Your task to perform on an android device: Check the settings for the Google Chrome app Image 0: 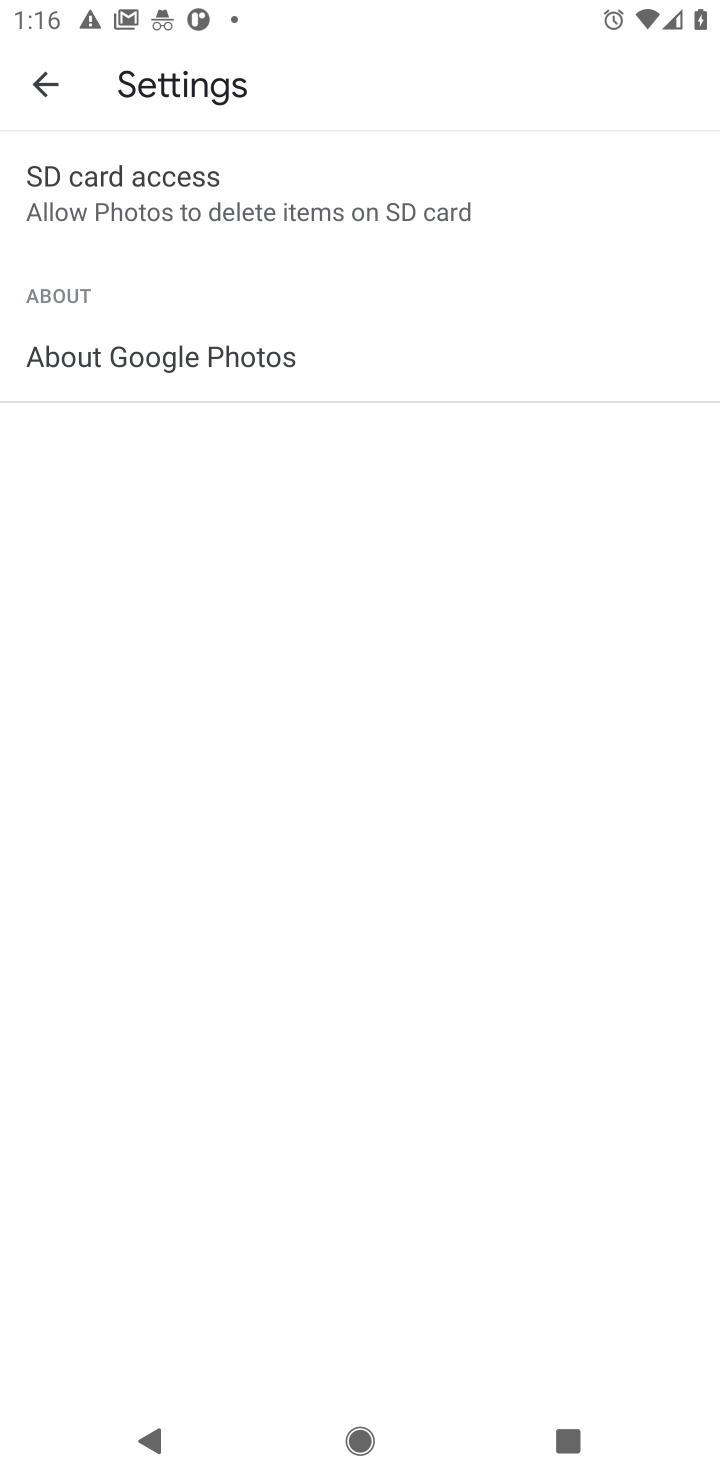
Step 0: press home button
Your task to perform on an android device: Check the settings for the Google Chrome app Image 1: 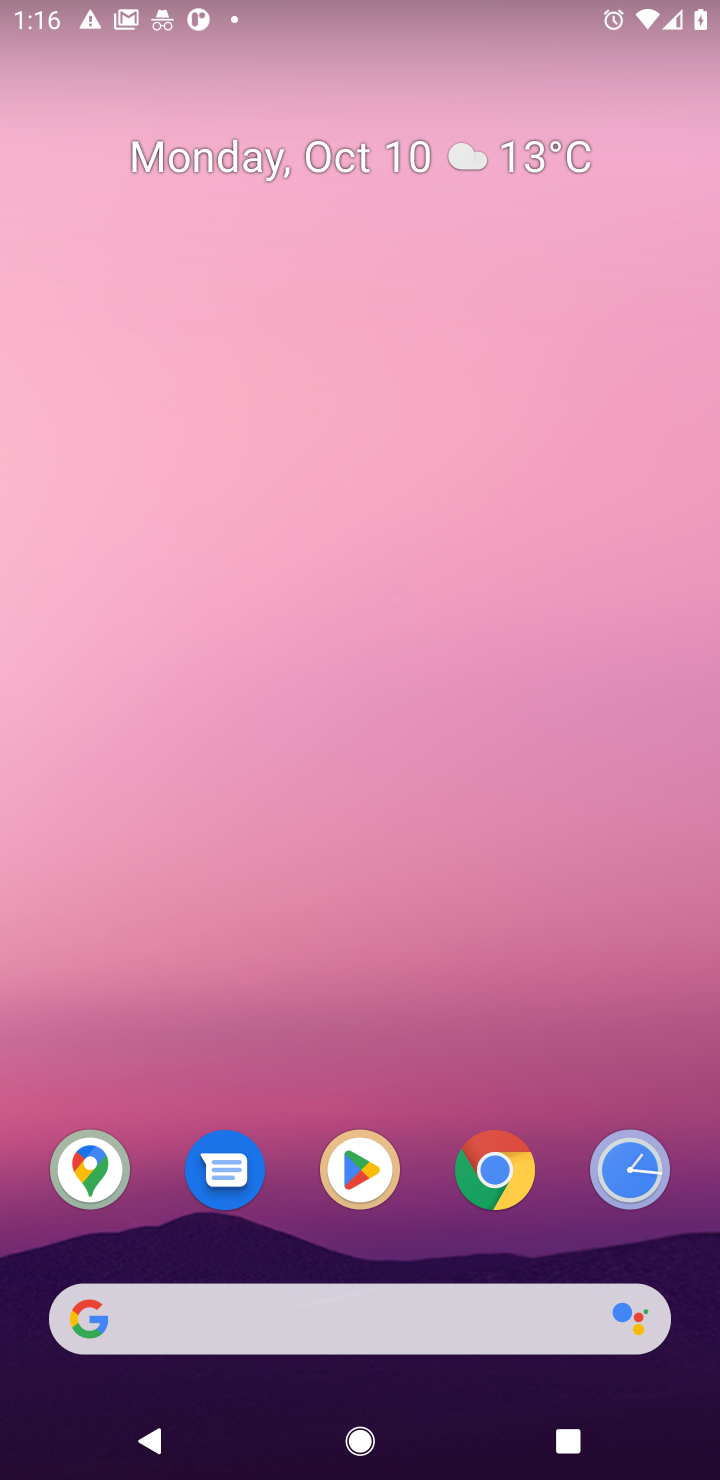
Step 1: click (503, 1196)
Your task to perform on an android device: Check the settings for the Google Chrome app Image 2: 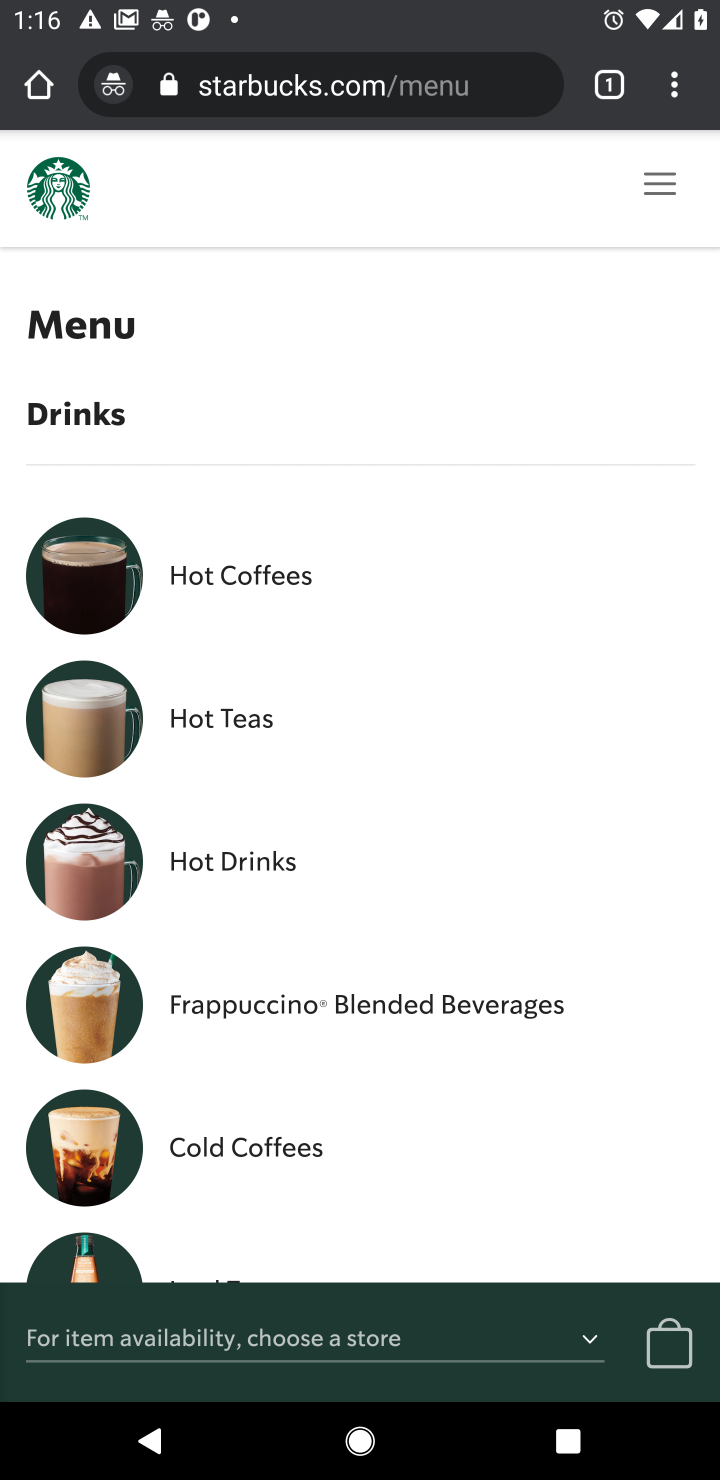
Step 2: click (683, 100)
Your task to perform on an android device: Check the settings for the Google Chrome app Image 3: 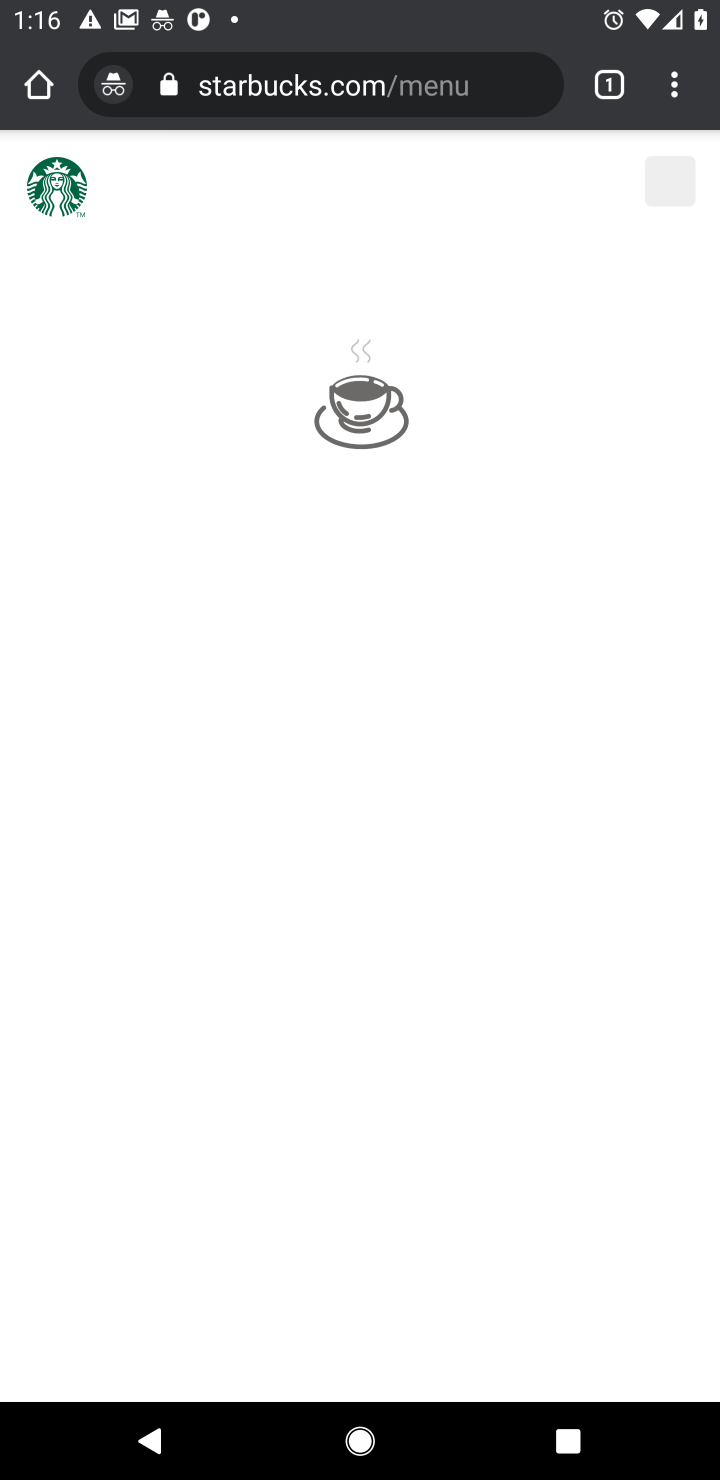
Step 3: click (683, 100)
Your task to perform on an android device: Check the settings for the Google Chrome app Image 4: 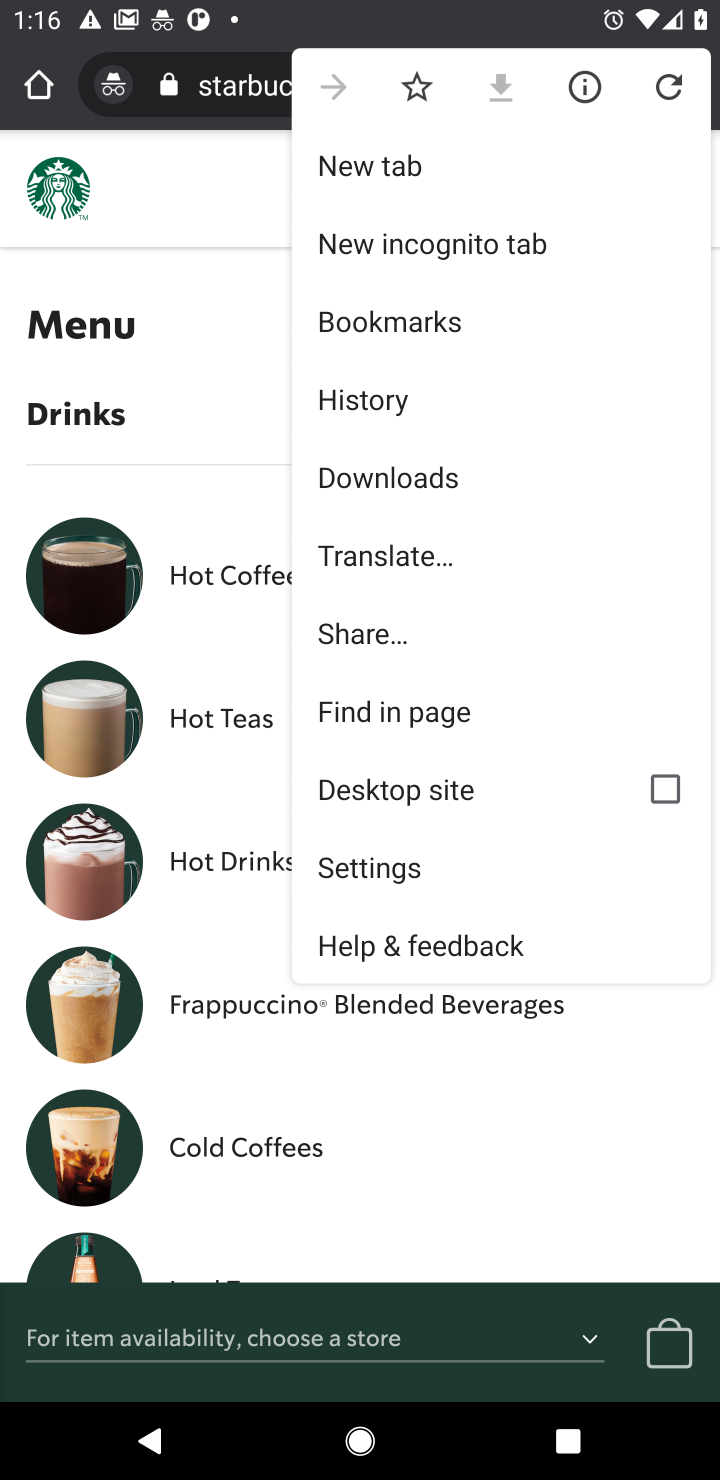
Step 4: click (377, 864)
Your task to perform on an android device: Check the settings for the Google Chrome app Image 5: 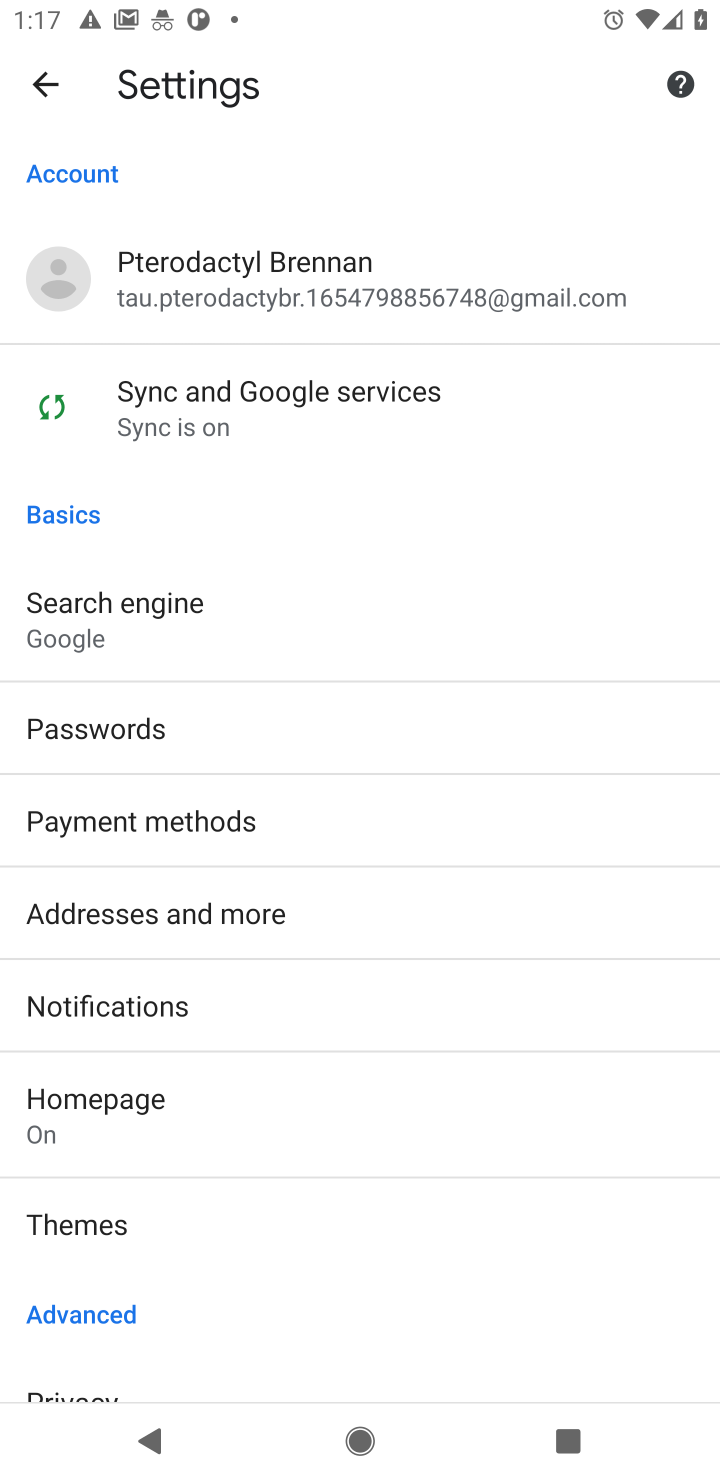
Step 5: task complete